Your task to perform on an android device: delete browsing data in the chrome app Image 0: 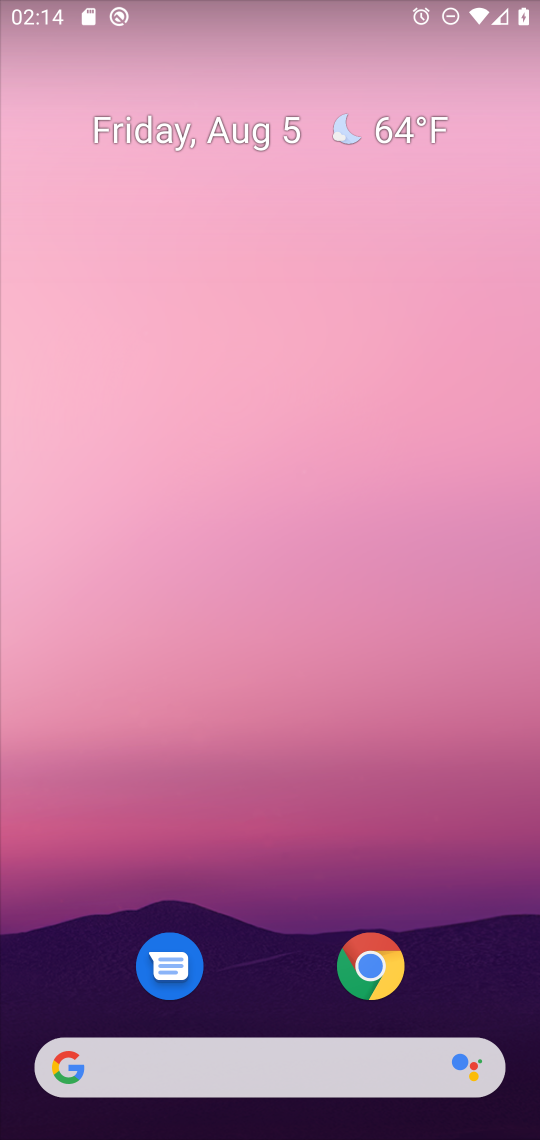
Step 0: click (362, 957)
Your task to perform on an android device: delete browsing data in the chrome app Image 1: 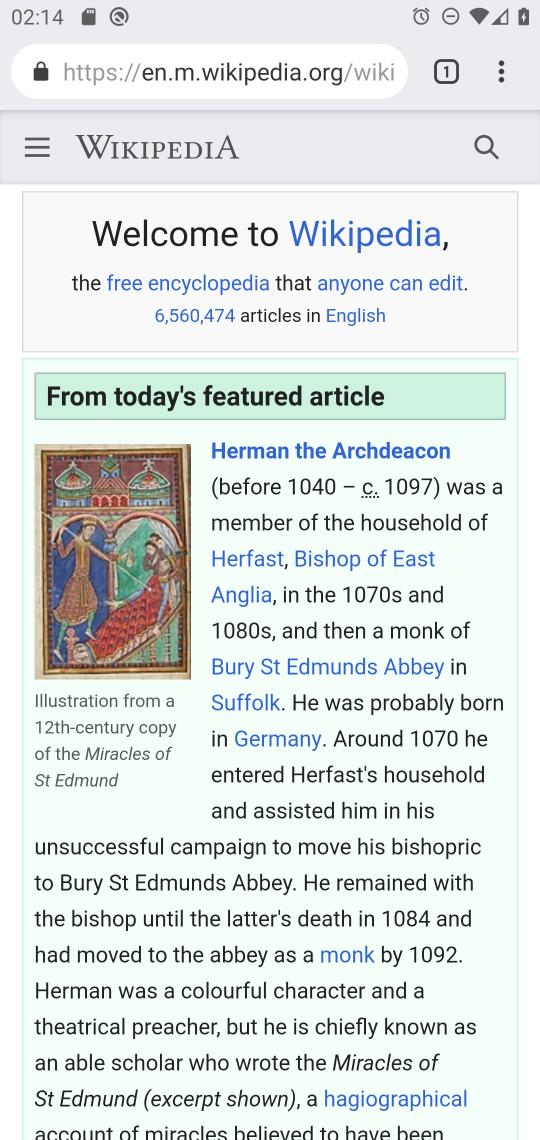
Step 1: click (501, 63)
Your task to perform on an android device: delete browsing data in the chrome app Image 2: 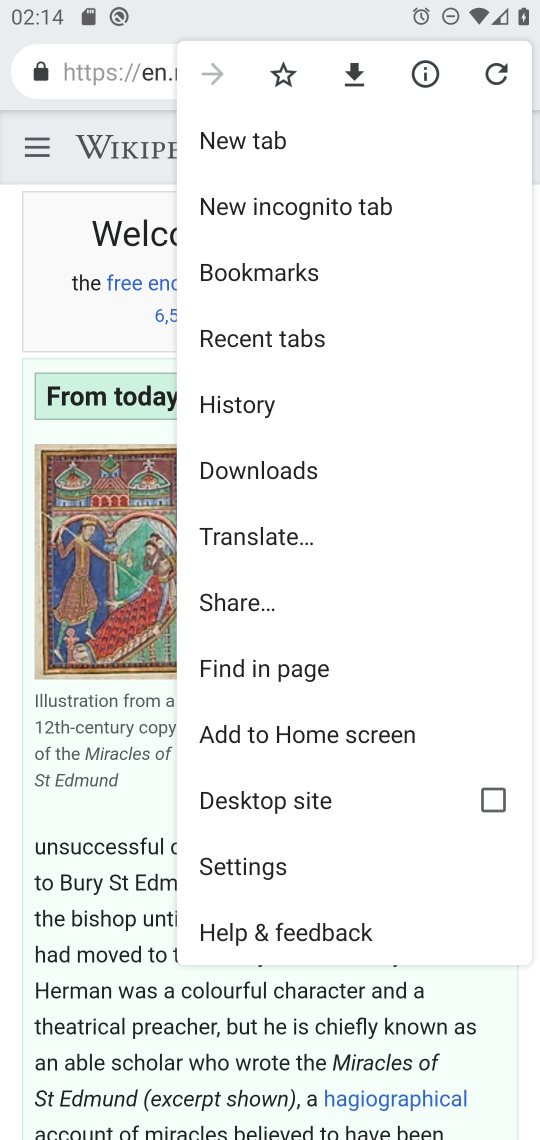
Step 2: click (264, 402)
Your task to perform on an android device: delete browsing data in the chrome app Image 3: 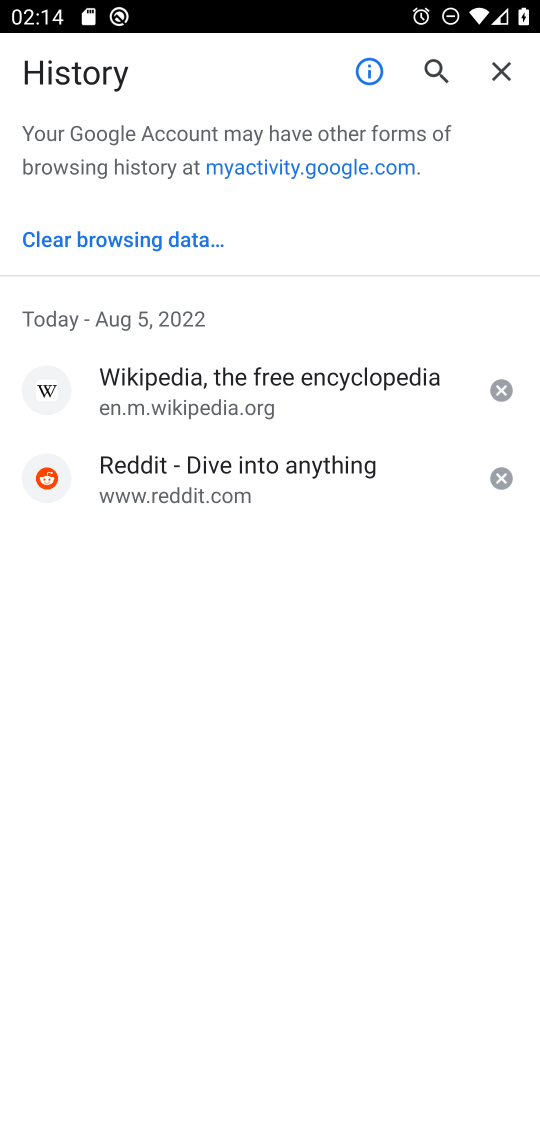
Step 3: click (146, 233)
Your task to perform on an android device: delete browsing data in the chrome app Image 4: 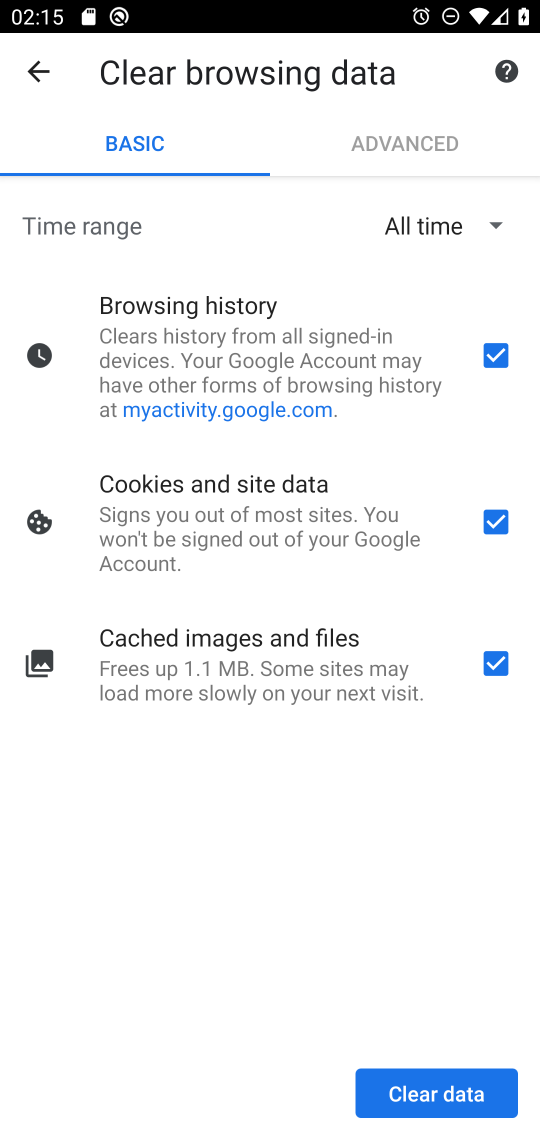
Step 4: click (467, 1094)
Your task to perform on an android device: delete browsing data in the chrome app Image 5: 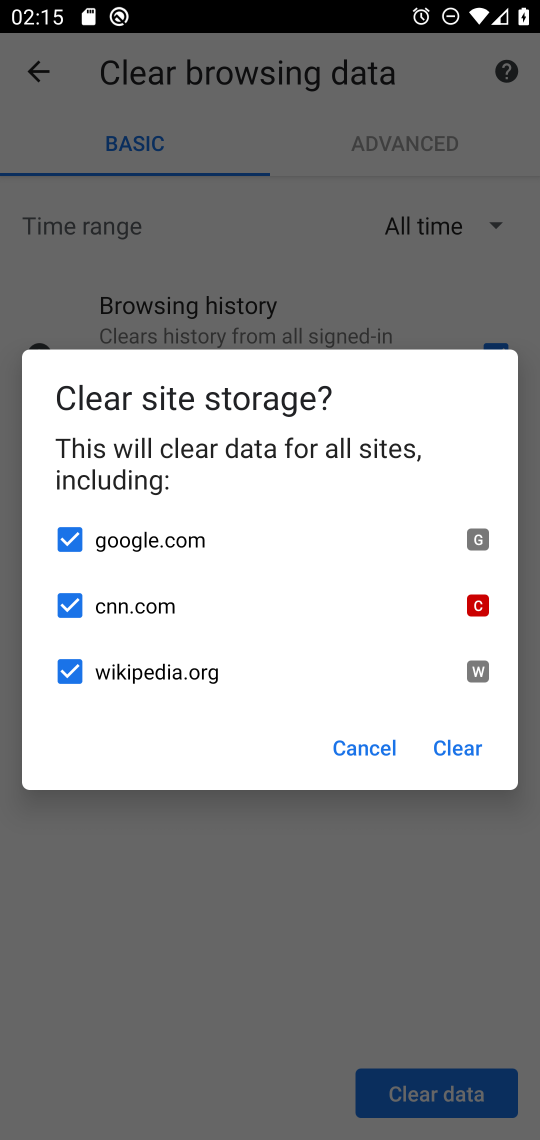
Step 5: click (449, 738)
Your task to perform on an android device: delete browsing data in the chrome app Image 6: 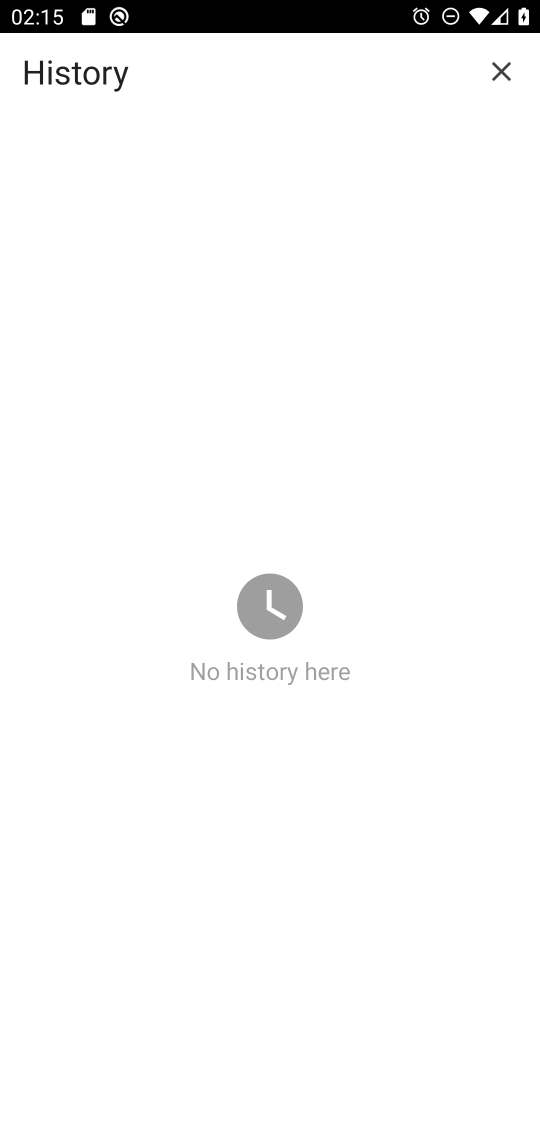
Step 6: task complete